Your task to perform on an android device: install app "LiveIn - Share Your Moment" Image 0: 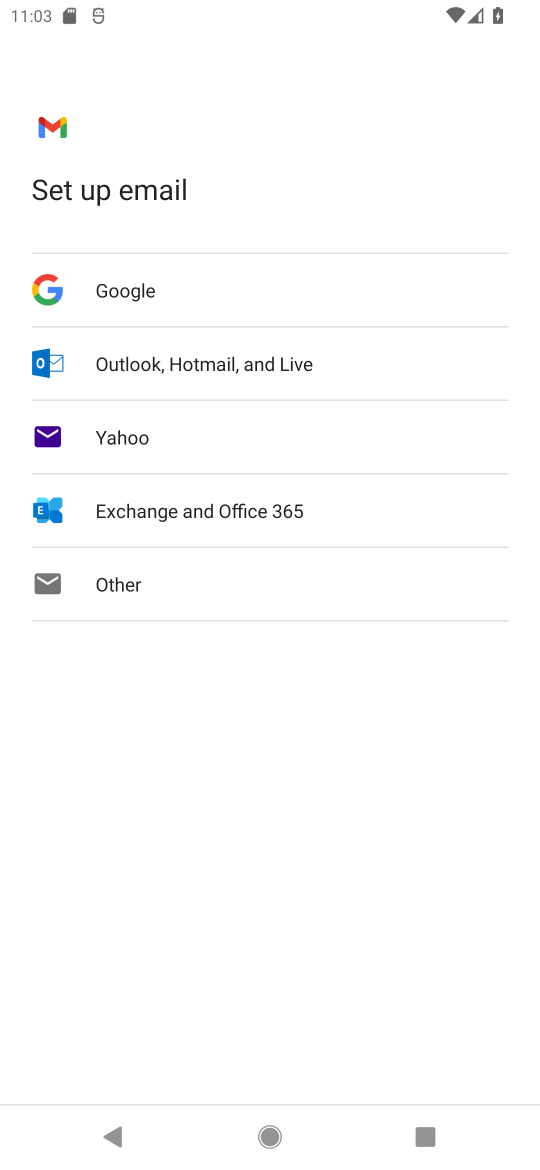
Step 0: press home button
Your task to perform on an android device: install app "LiveIn - Share Your Moment" Image 1: 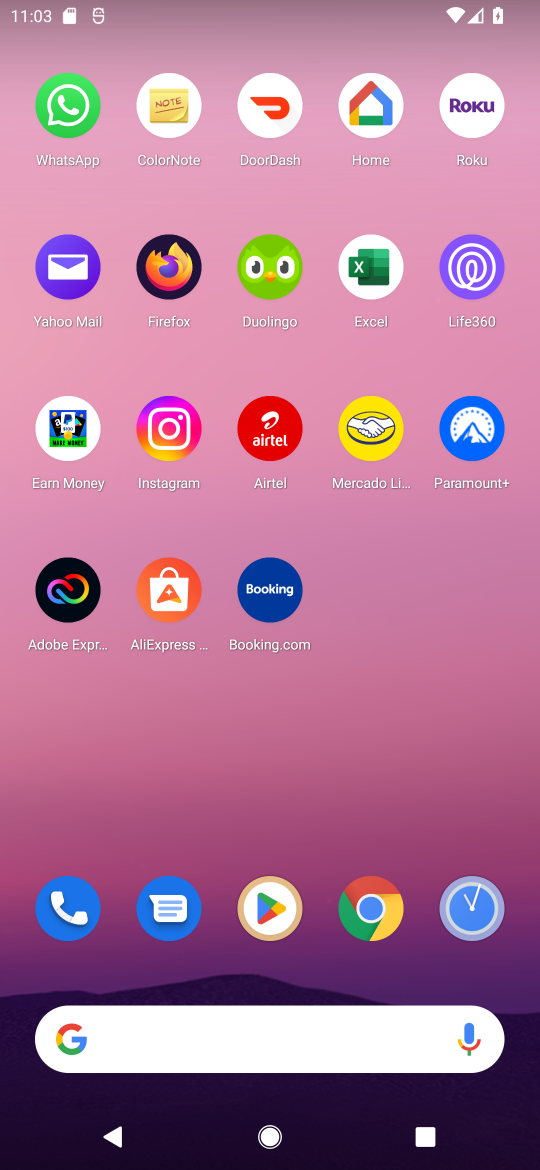
Step 1: click (278, 904)
Your task to perform on an android device: install app "LiveIn - Share Your Moment" Image 2: 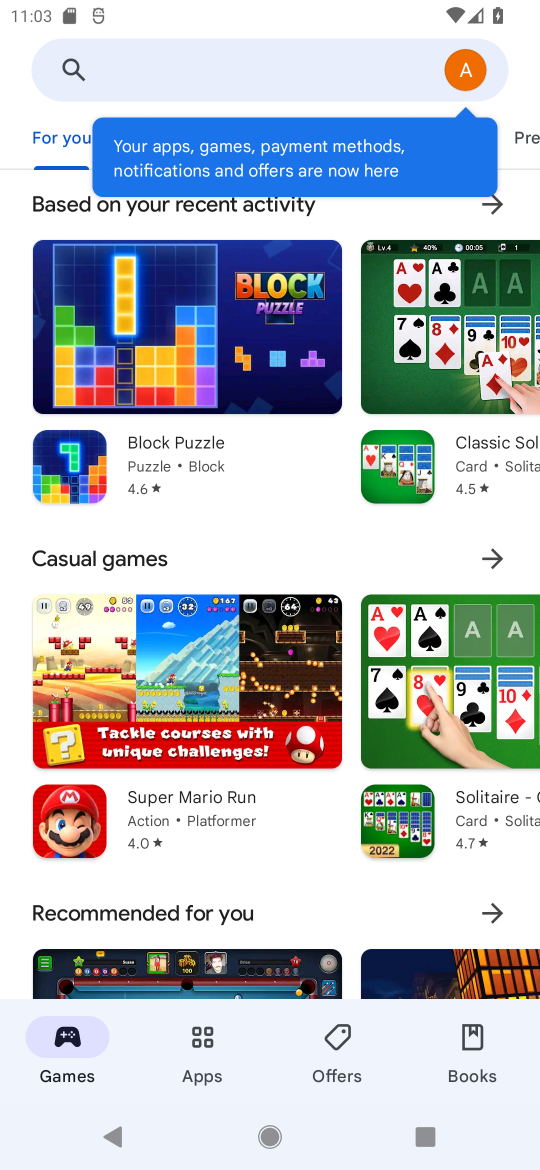
Step 2: click (230, 64)
Your task to perform on an android device: install app "LiveIn - Share Your Moment" Image 3: 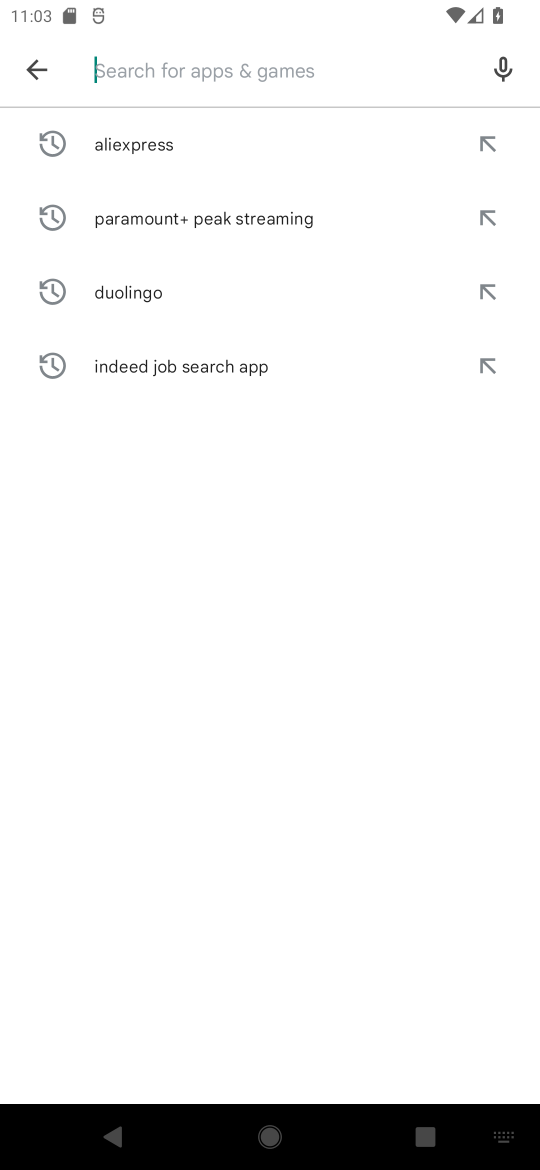
Step 3: type "LiveIn - Share Your Moment"
Your task to perform on an android device: install app "LiveIn - Share Your Moment" Image 4: 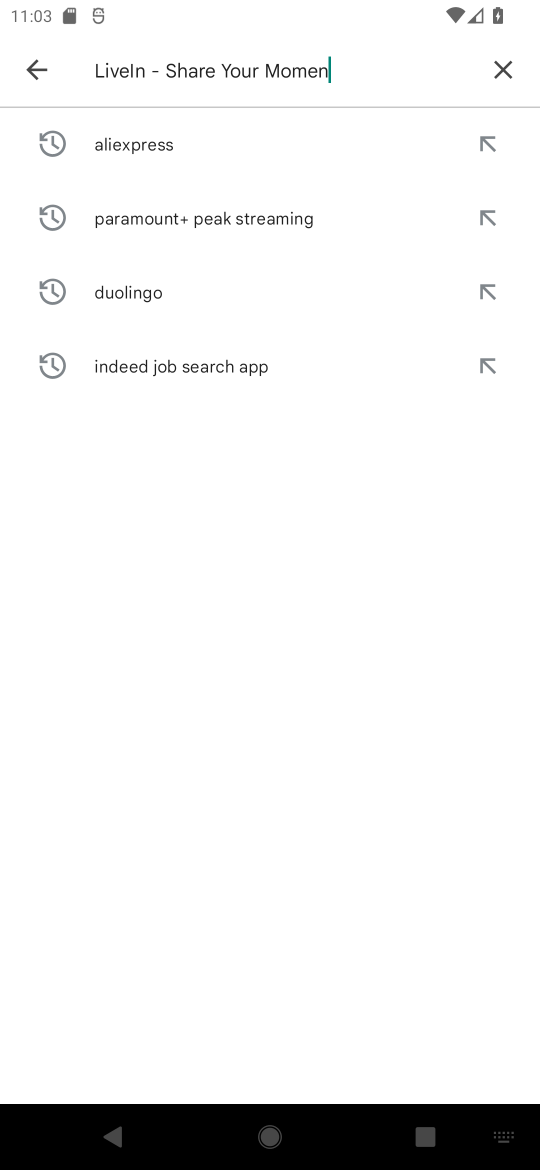
Step 4: type ""
Your task to perform on an android device: install app "LiveIn - Share Your Moment" Image 5: 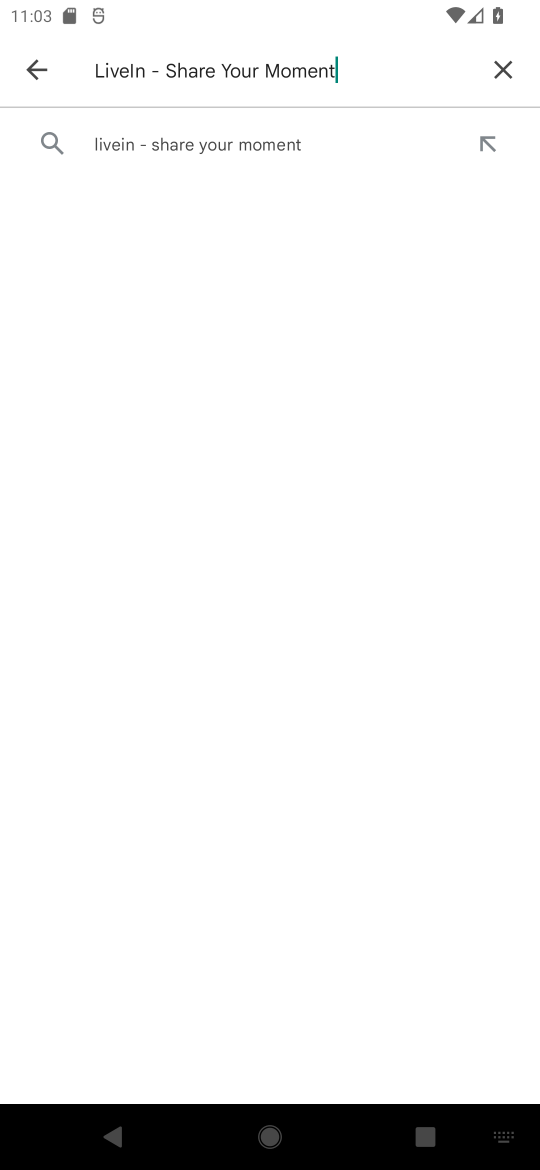
Step 5: click (294, 130)
Your task to perform on an android device: install app "LiveIn - Share Your Moment" Image 6: 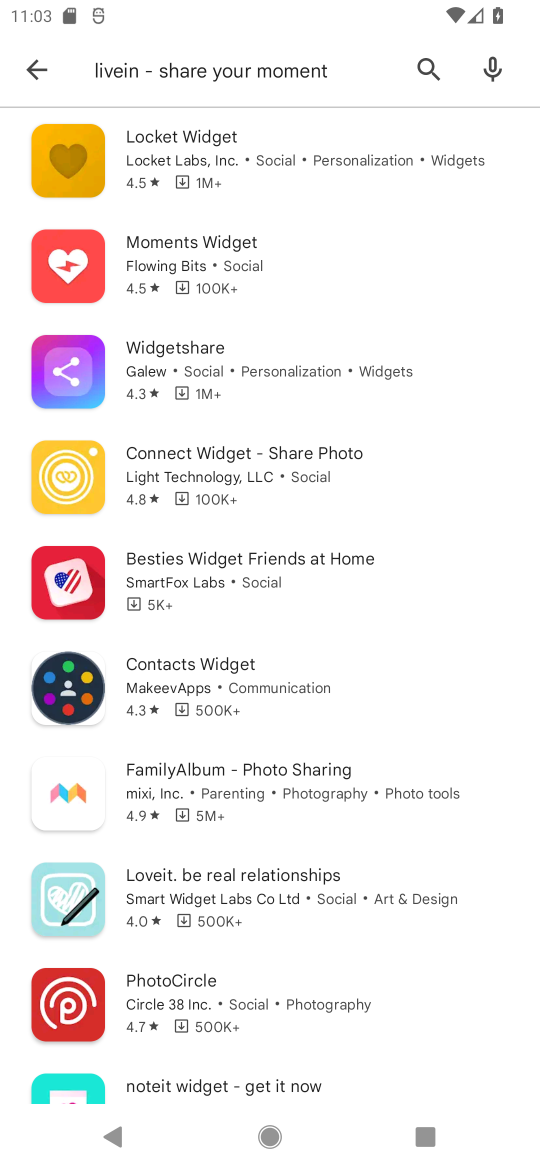
Step 6: task complete